Your task to perform on an android device: turn on data saver in the chrome app Image 0: 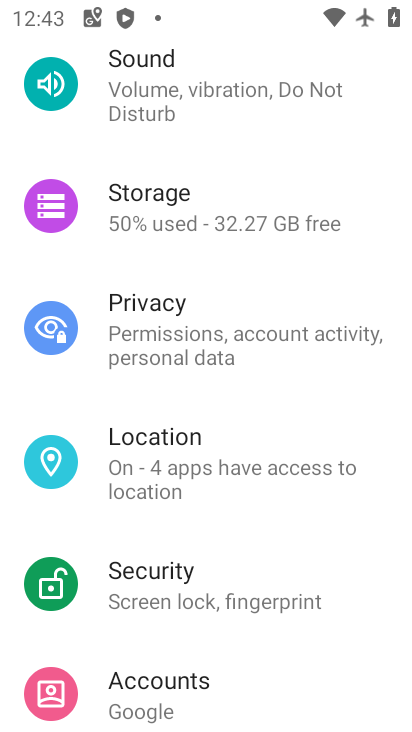
Step 0: press home button
Your task to perform on an android device: turn on data saver in the chrome app Image 1: 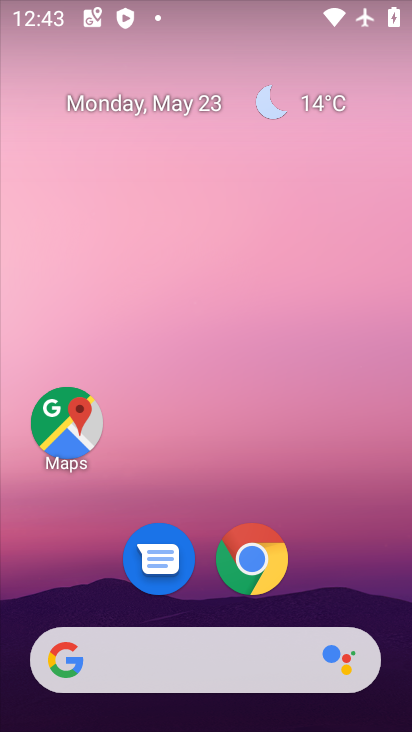
Step 1: click (340, 535)
Your task to perform on an android device: turn on data saver in the chrome app Image 2: 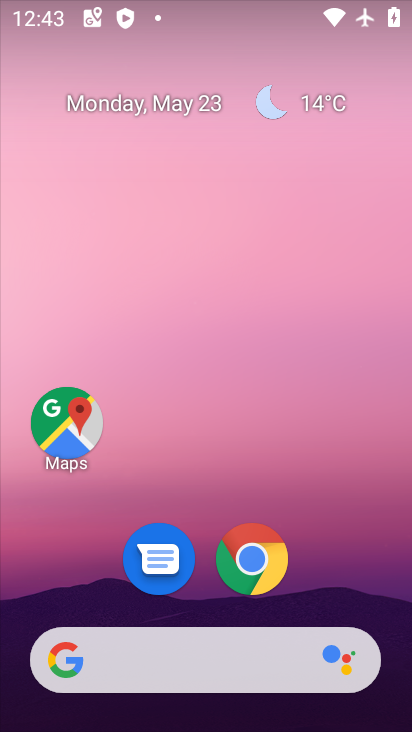
Step 2: click (254, 550)
Your task to perform on an android device: turn on data saver in the chrome app Image 3: 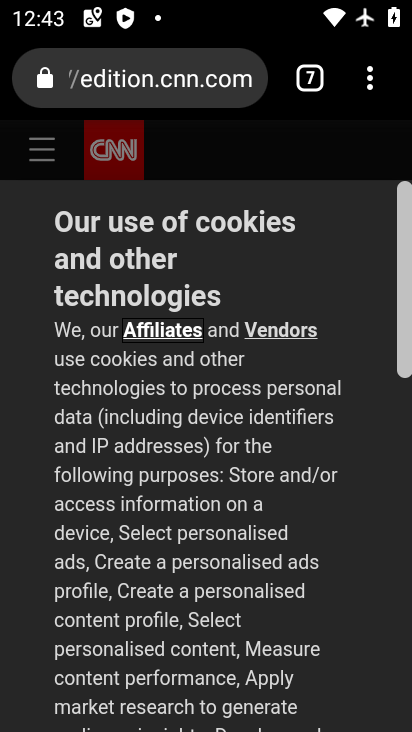
Step 3: click (373, 85)
Your task to perform on an android device: turn on data saver in the chrome app Image 4: 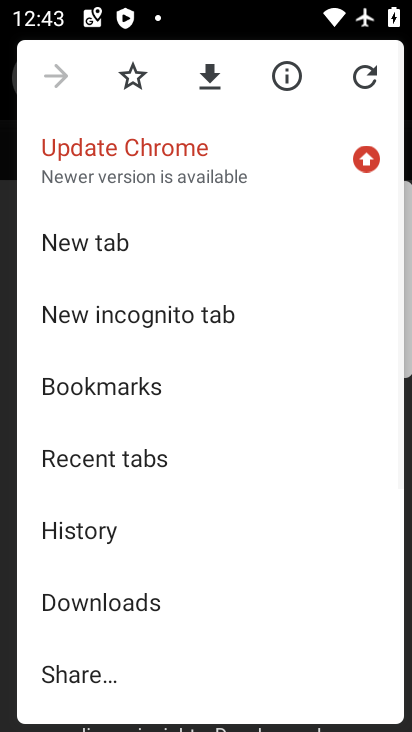
Step 4: drag from (205, 617) to (186, 126)
Your task to perform on an android device: turn on data saver in the chrome app Image 5: 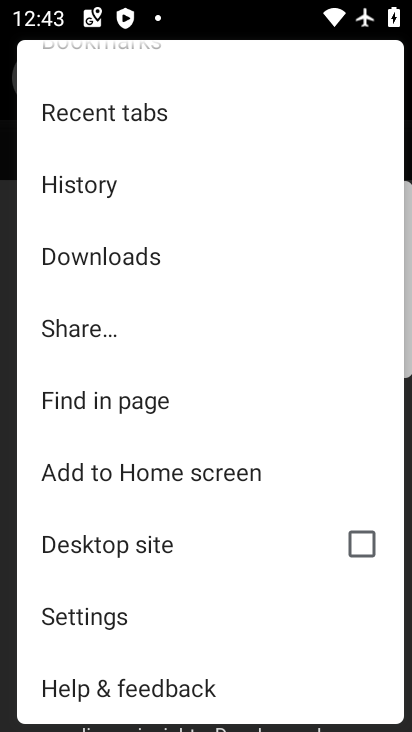
Step 5: click (95, 612)
Your task to perform on an android device: turn on data saver in the chrome app Image 6: 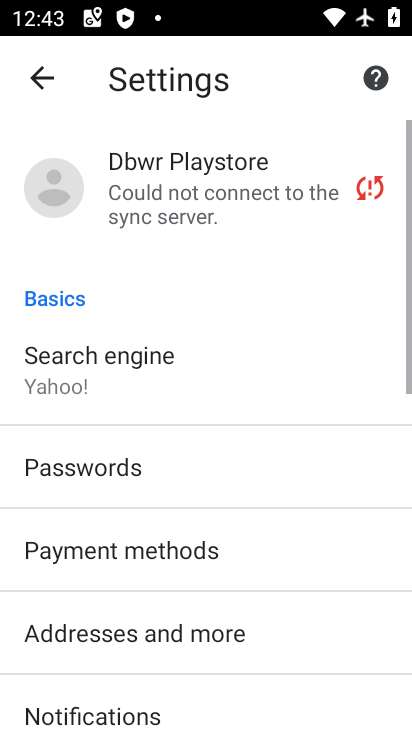
Step 6: drag from (189, 176) to (184, 129)
Your task to perform on an android device: turn on data saver in the chrome app Image 7: 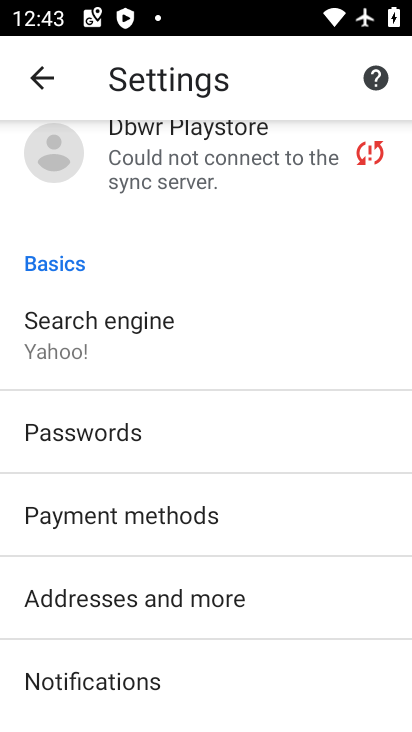
Step 7: drag from (253, 619) to (244, 110)
Your task to perform on an android device: turn on data saver in the chrome app Image 8: 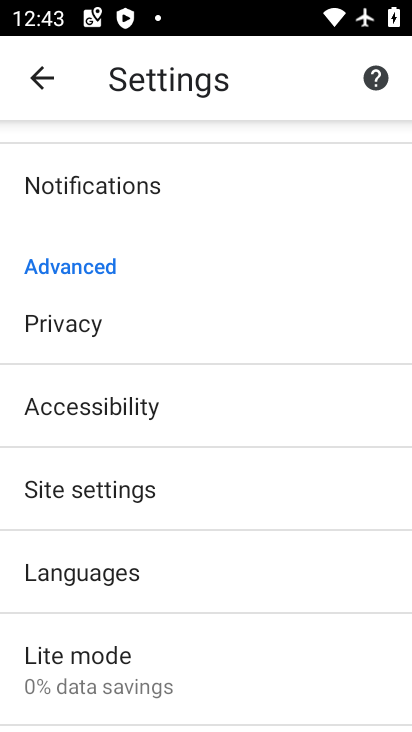
Step 8: click (90, 664)
Your task to perform on an android device: turn on data saver in the chrome app Image 9: 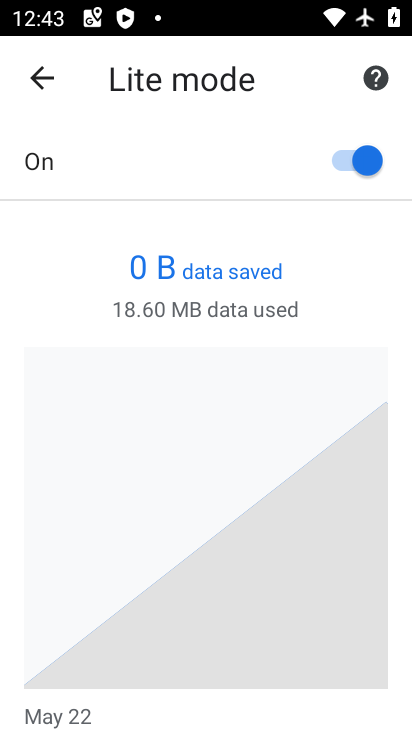
Step 9: task complete